Your task to perform on an android device: toggle data saver in the chrome app Image 0: 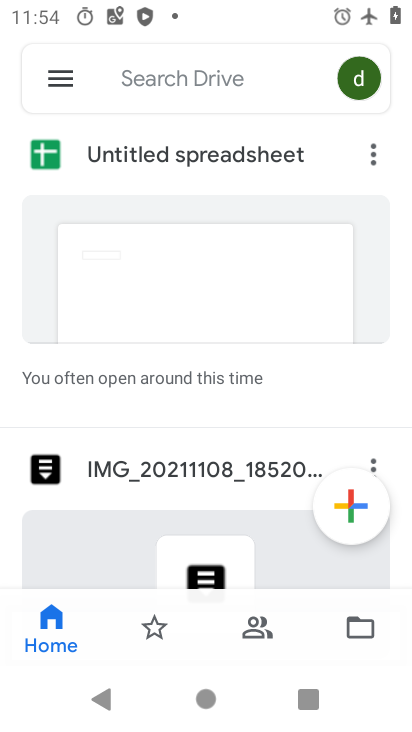
Step 0: press home button
Your task to perform on an android device: toggle data saver in the chrome app Image 1: 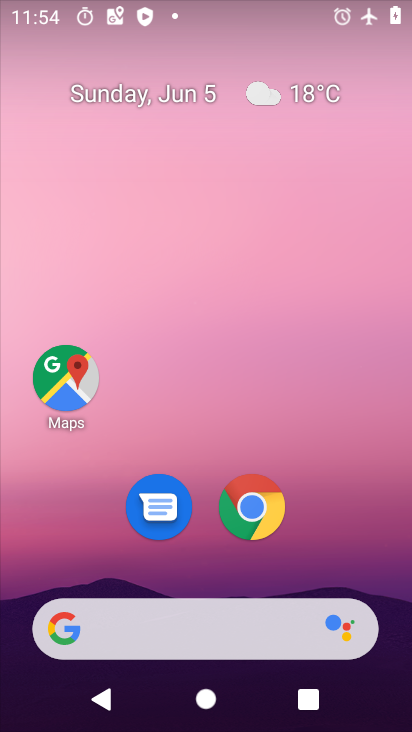
Step 1: click (252, 511)
Your task to perform on an android device: toggle data saver in the chrome app Image 2: 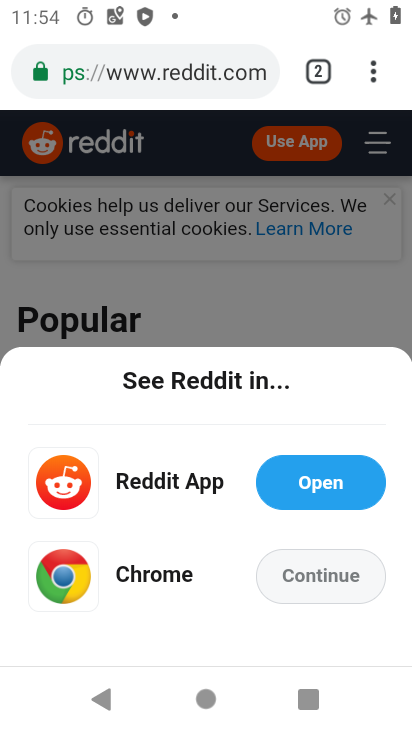
Step 2: click (373, 79)
Your task to perform on an android device: toggle data saver in the chrome app Image 3: 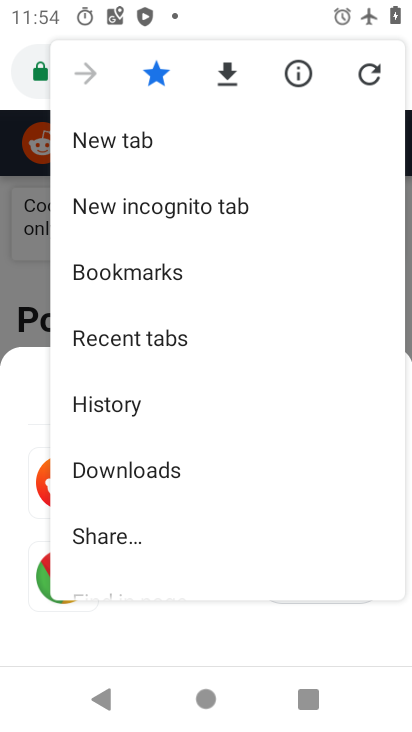
Step 3: drag from (133, 568) to (166, 160)
Your task to perform on an android device: toggle data saver in the chrome app Image 4: 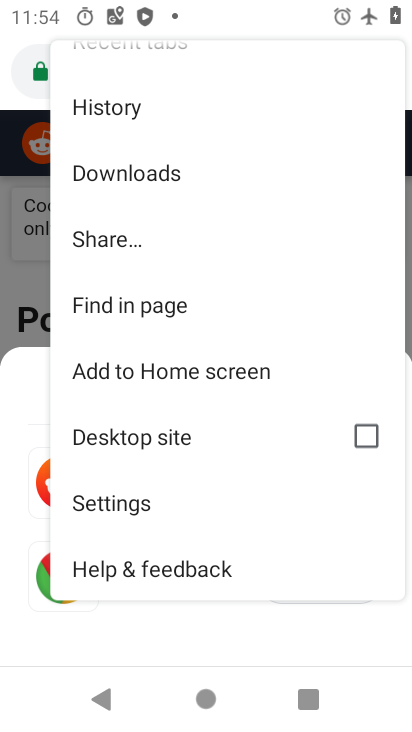
Step 4: click (127, 497)
Your task to perform on an android device: toggle data saver in the chrome app Image 5: 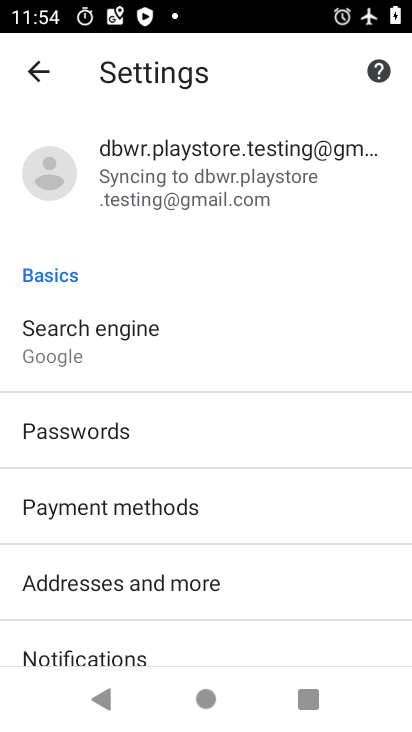
Step 5: drag from (143, 658) to (145, 202)
Your task to perform on an android device: toggle data saver in the chrome app Image 6: 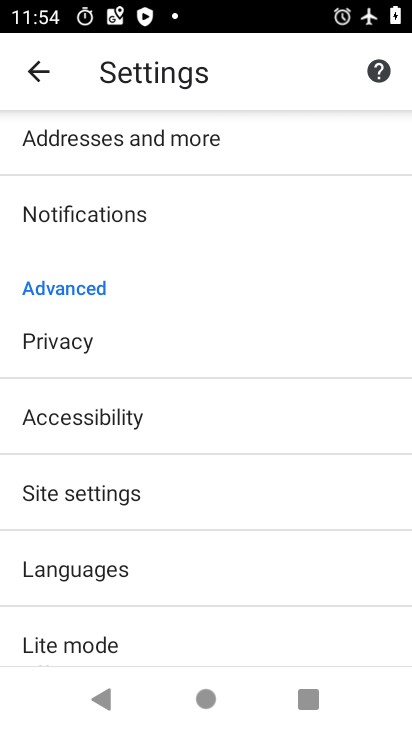
Step 6: click (95, 628)
Your task to perform on an android device: toggle data saver in the chrome app Image 7: 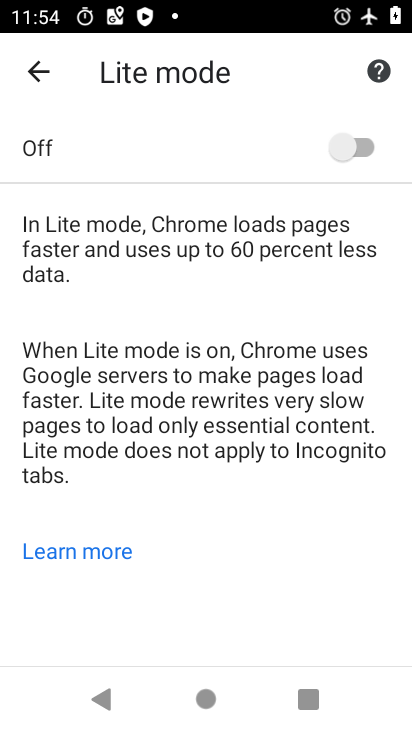
Step 7: click (362, 139)
Your task to perform on an android device: toggle data saver in the chrome app Image 8: 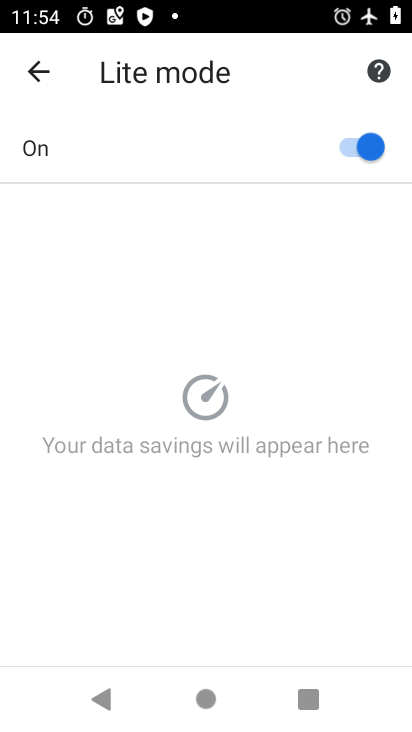
Step 8: task complete